Your task to perform on an android device: Open calendar and show me the second week of next month Image 0: 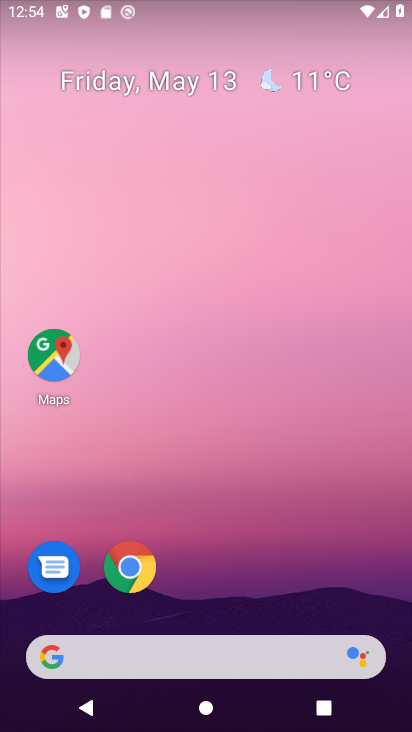
Step 0: drag from (185, 623) to (266, 206)
Your task to perform on an android device: Open calendar and show me the second week of next month Image 1: 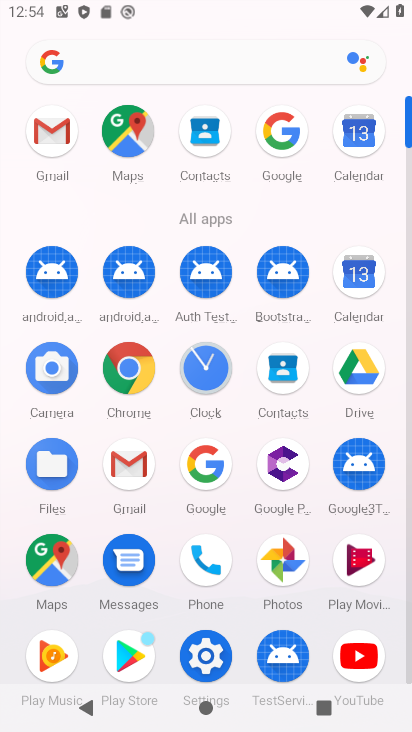
Step 1: click (351, 267)
Your task to perform on an android device: Open calendar and show me the second week of next month Image 2: 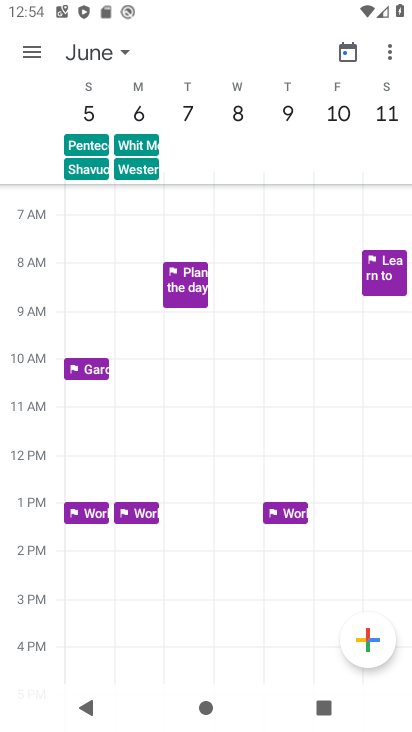
Step 2: click (104, 57)
Your task to perform on an android device: Open calendar and show me the second week of next month Image 3: 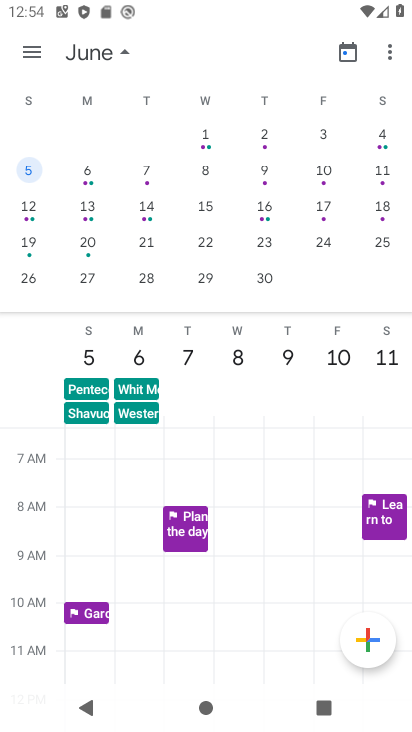
Step 3: click (30, 215)
Your task to perform on an android device: Open calendar and show me the second week of next month Image 4: 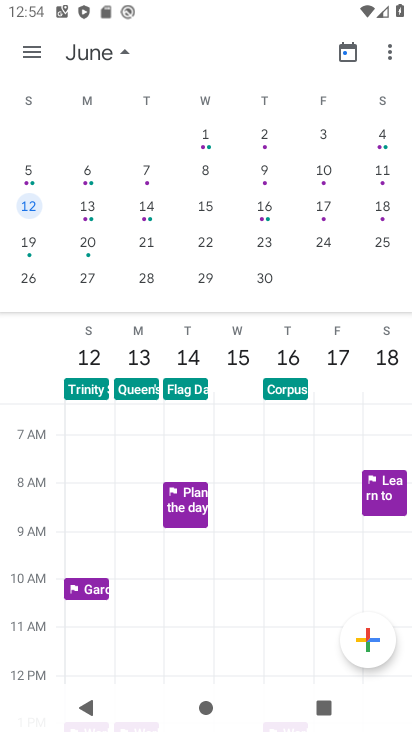
Step 4: click (116, 51)
Your task to perform on an android device: Open calendar and show me the second week of next month Image 5: 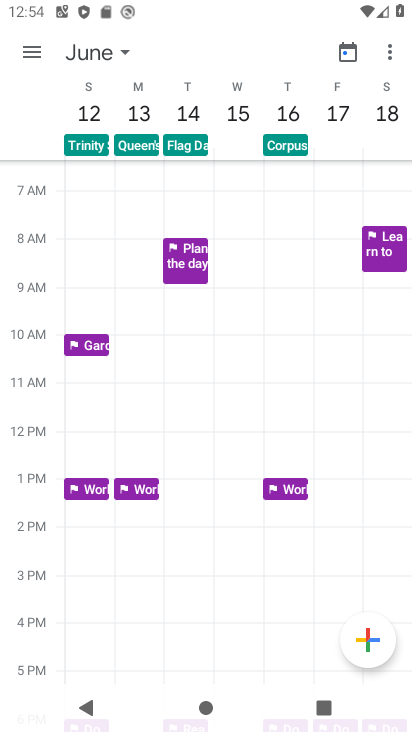
Step 5: task complete